Your task to perform on an android device: Go to settings Image 0: 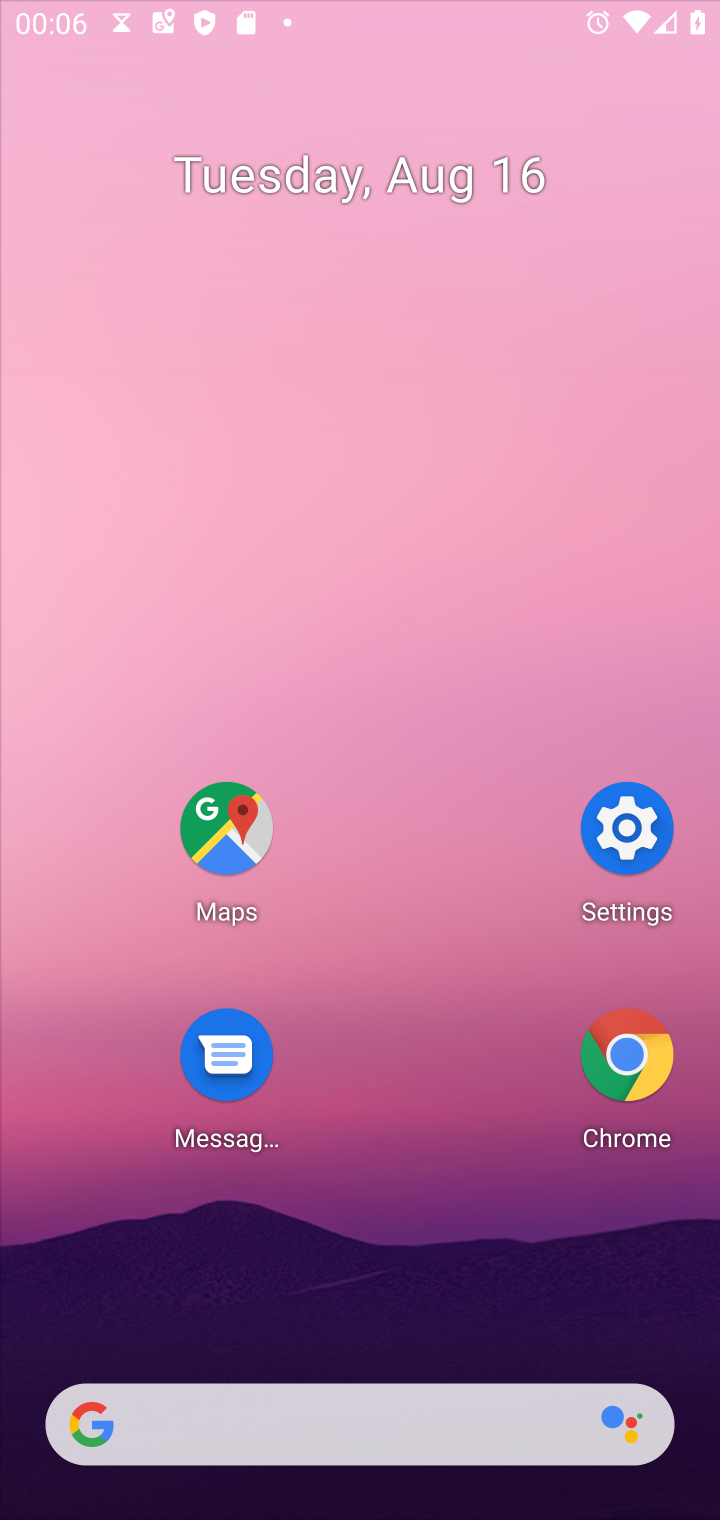
Step 0: press home button
Your task to perform on an android device: Go to settings Image 1: 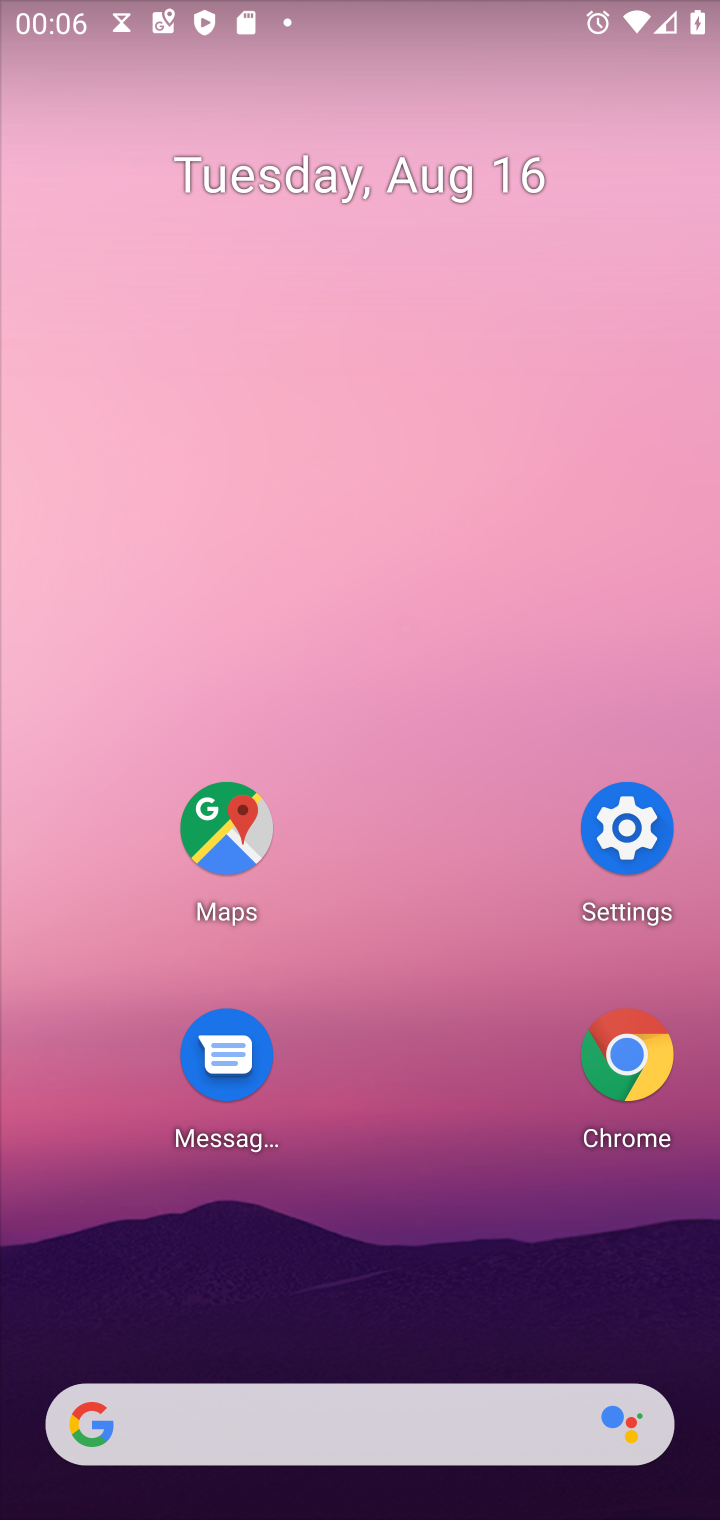
Step 1: click (617, 832)
Your task to perform on an android device: Go to settings Image 2: 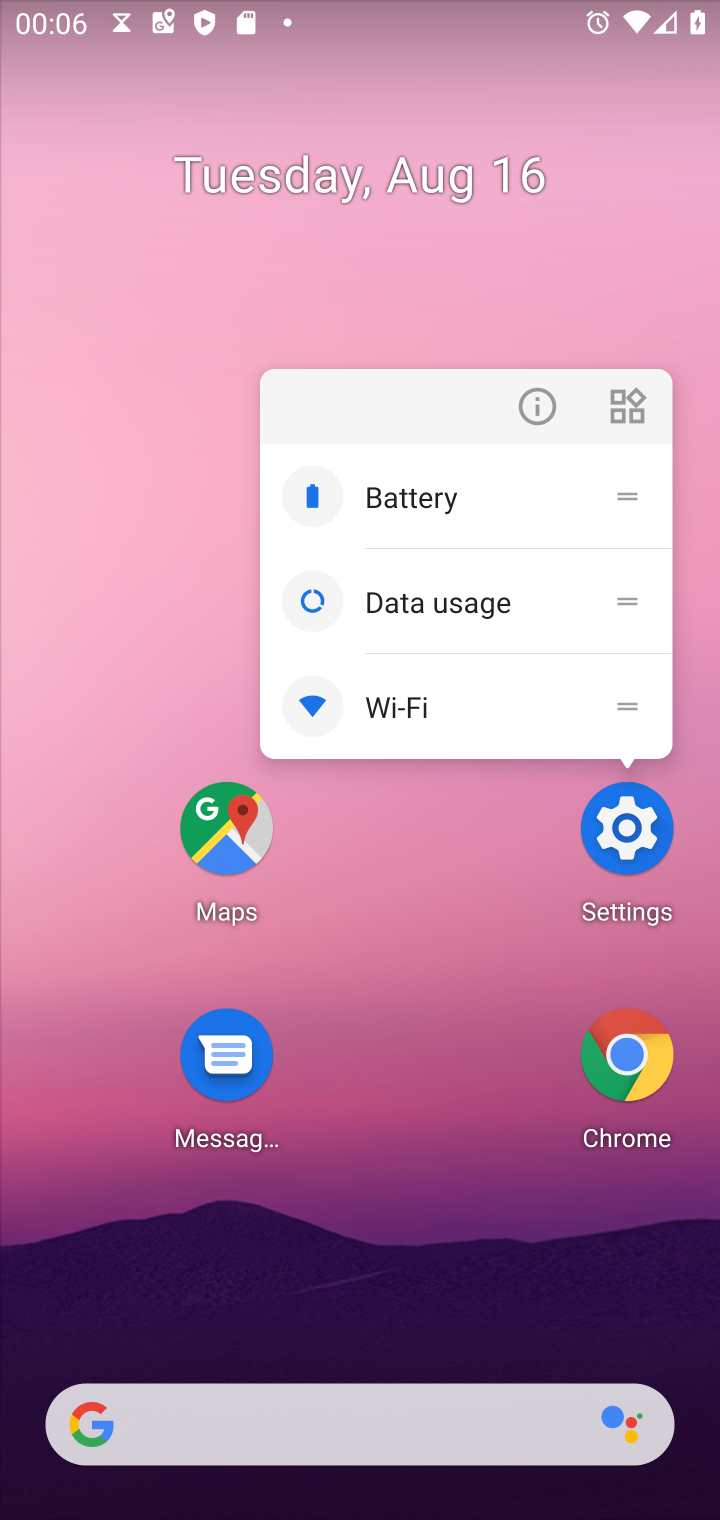
Step 2: click (617, 838)
Your task to perform on an android device: Go to settings Image 3: 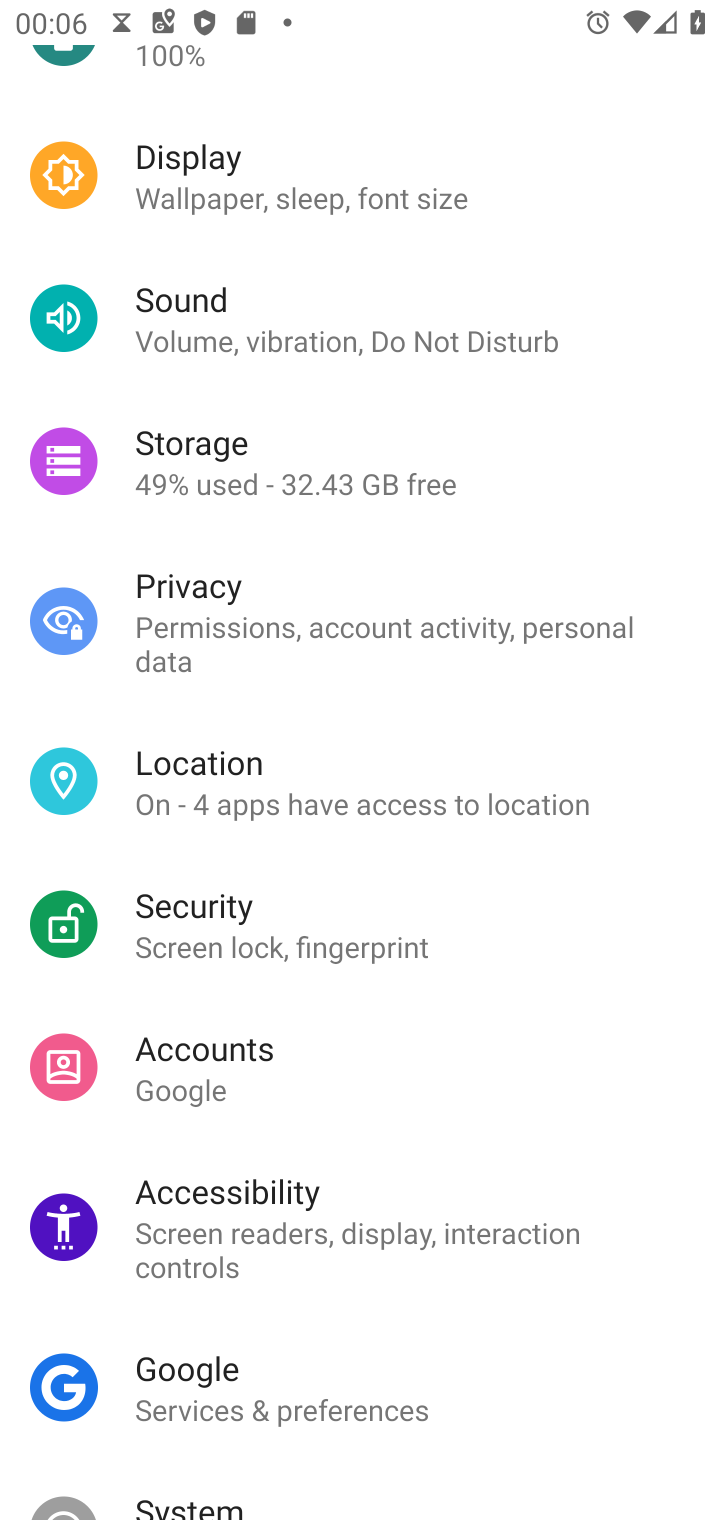
Step 3: task complete